Your task to perform on an android device: Open settings on Google Maps Image 0: 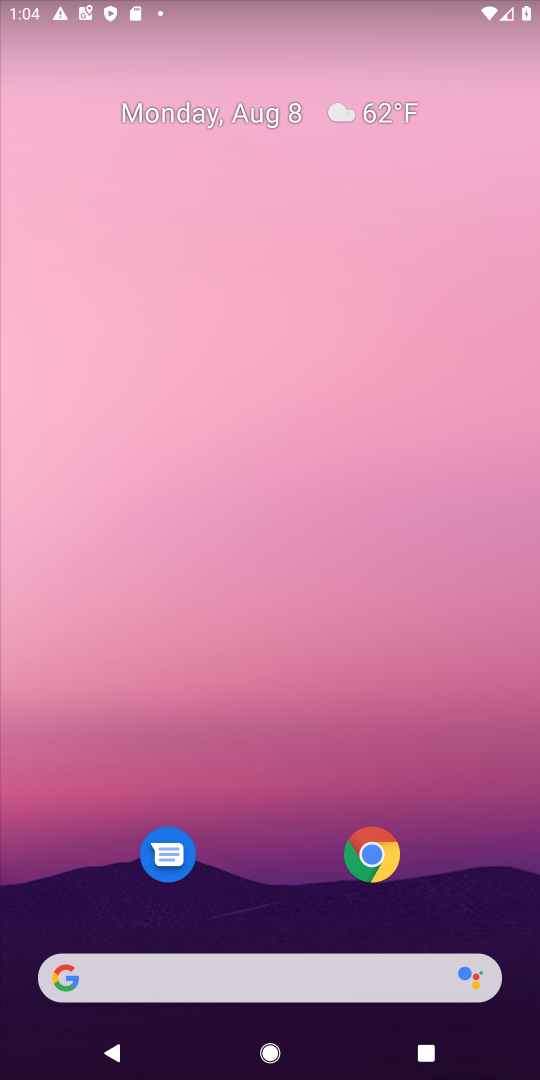
Step 0: drag from (258, 893) to (356, 182)
Your task to perform on an android device: Open settings on Google Maps Image 1: 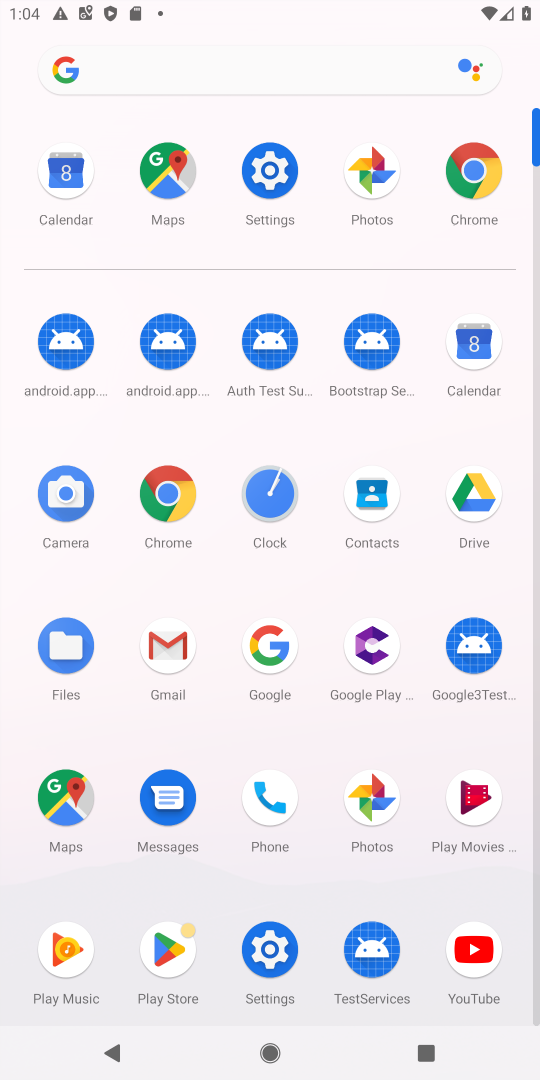
Step 1: click (62, 780)
Your task to perform on an android device: Open settings on Google Maps Image 2: 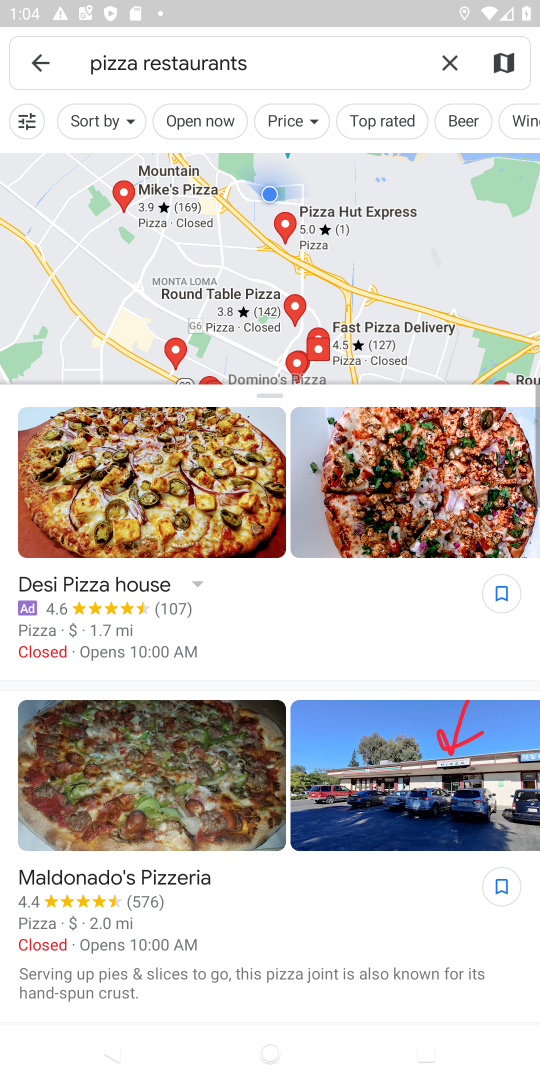
Step 2: click (35, 70)
Your task to perform on an android device: Open settings on Google Maps Image 3: 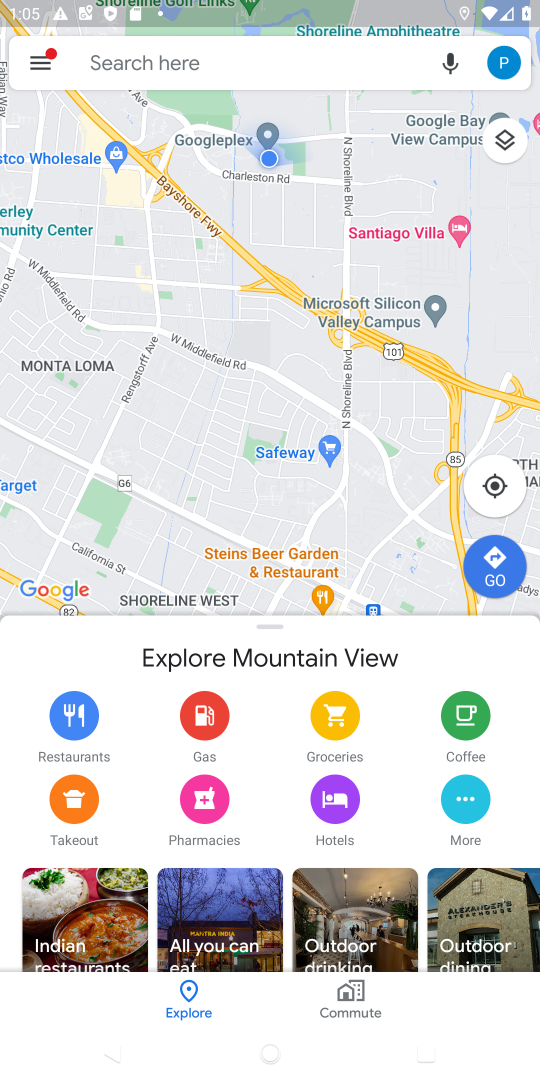
Step 3: task complete